Your task to perform on an android device: Open Yahoo.com Image 0: 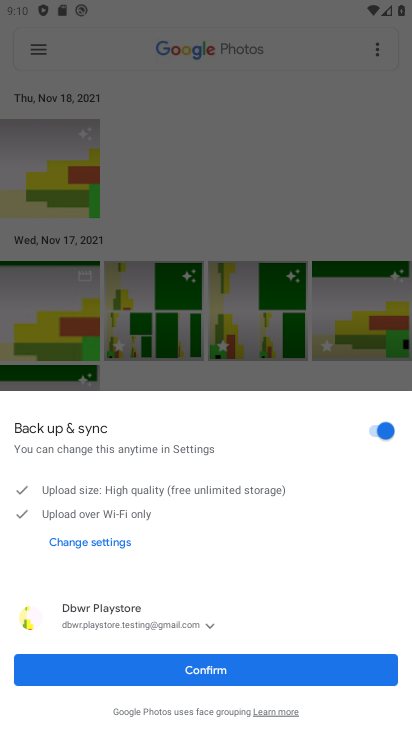
Step 0: press home button
Your task to perform on an android device: Open Yahoo.com Image 1: 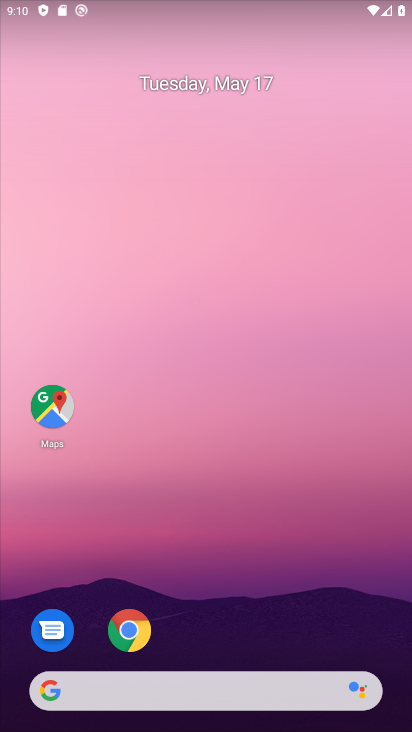
Step 1: drag from (269, 647) to (214, 144)
Your task to perform on an android device: Open Yahoo.com Image 2: 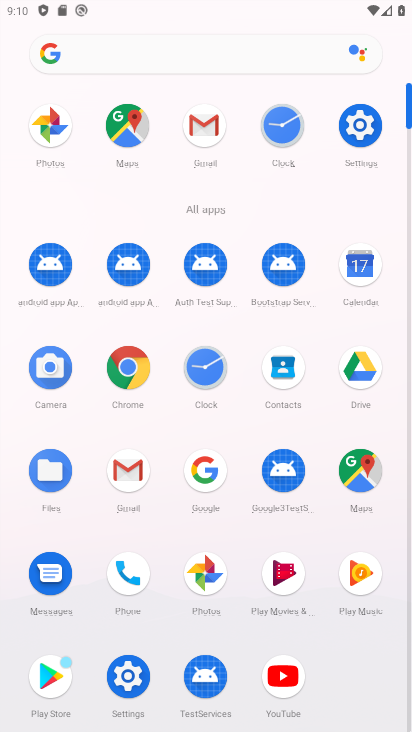
Step 2: click (130, 369)
Your task to perform on an android device: Open Yahoo.com Image 3: 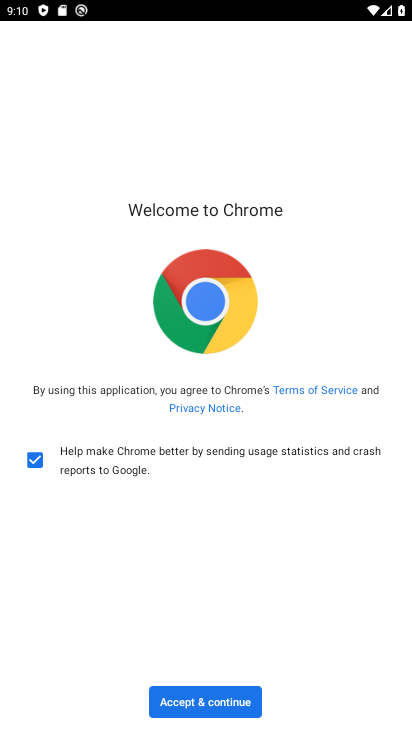
Step 3: click (200, 704)
Your task to perform on an android device: Open Yahoo.com Image 4: 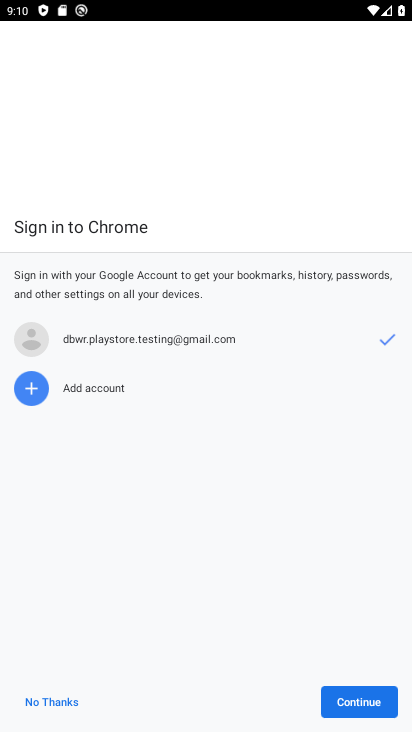
Step 4: click (344, 692)
Your task to perform on an android device: Open Yahoo.com Image 5: 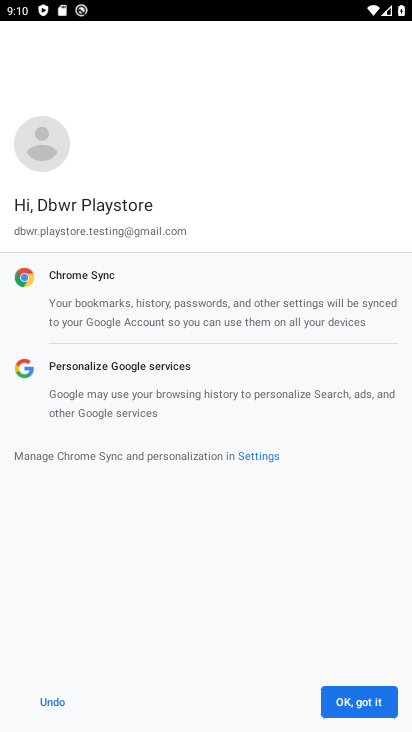
Step 5: click (344, 692)
Your task to perform on an android device: Open Yahoo.com Image 6: 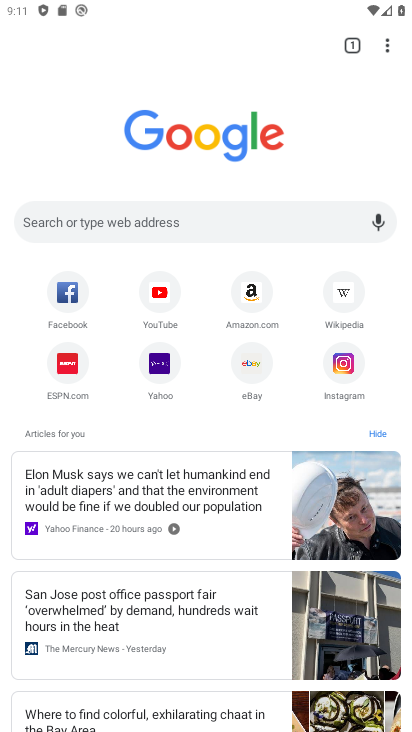
Step 6: click (162, 363)
Your task to perform on an android device: Open Yahoo.com Image 7: 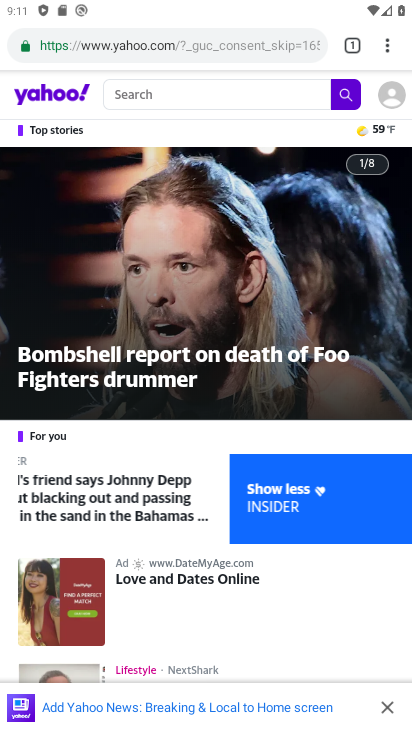
Step 7: task complete